Your task to perform on an android device: open app "Facebook Messenger" (install if not already installed) Image 0: 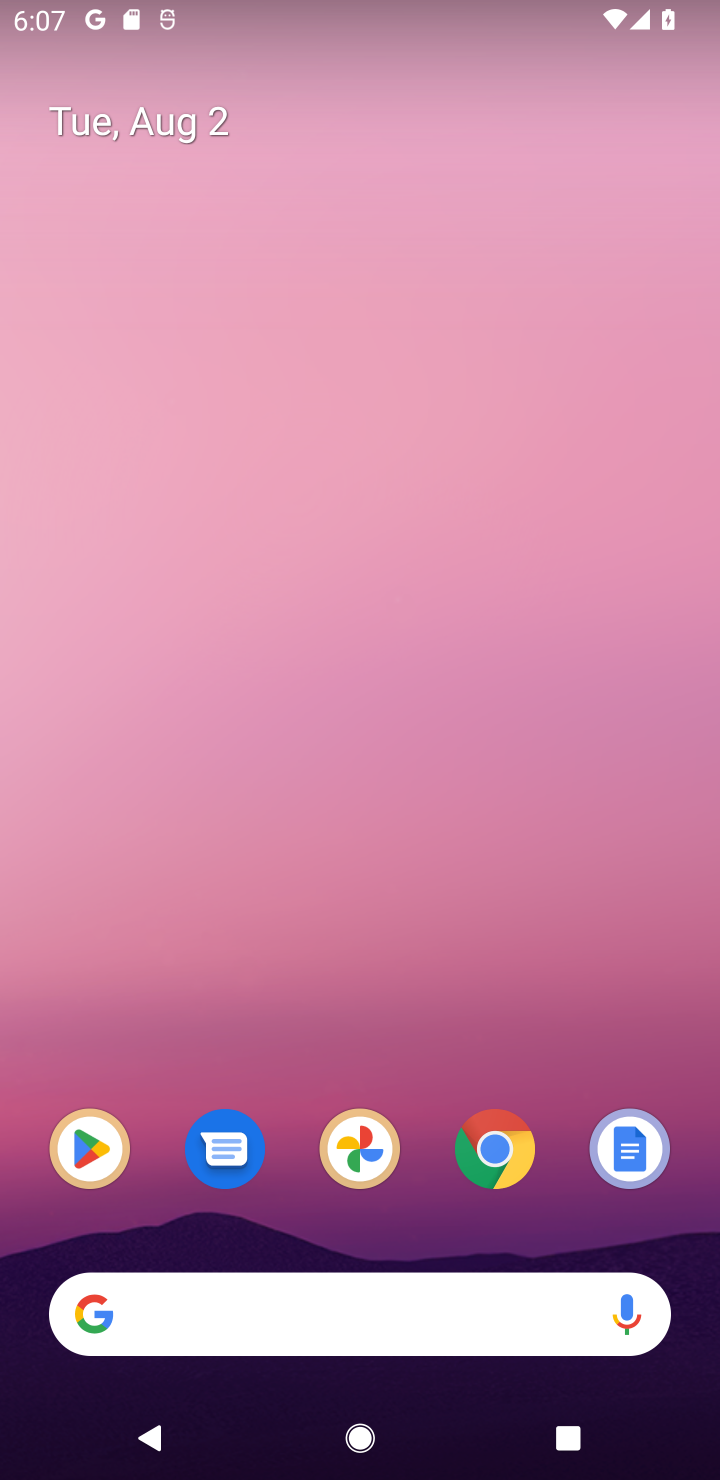
Step 0: drag from (427, 1222) to (376, 222)
Your task to perform on an android device: open app "Facebook Messenger" (install if not already installed) Image 1: 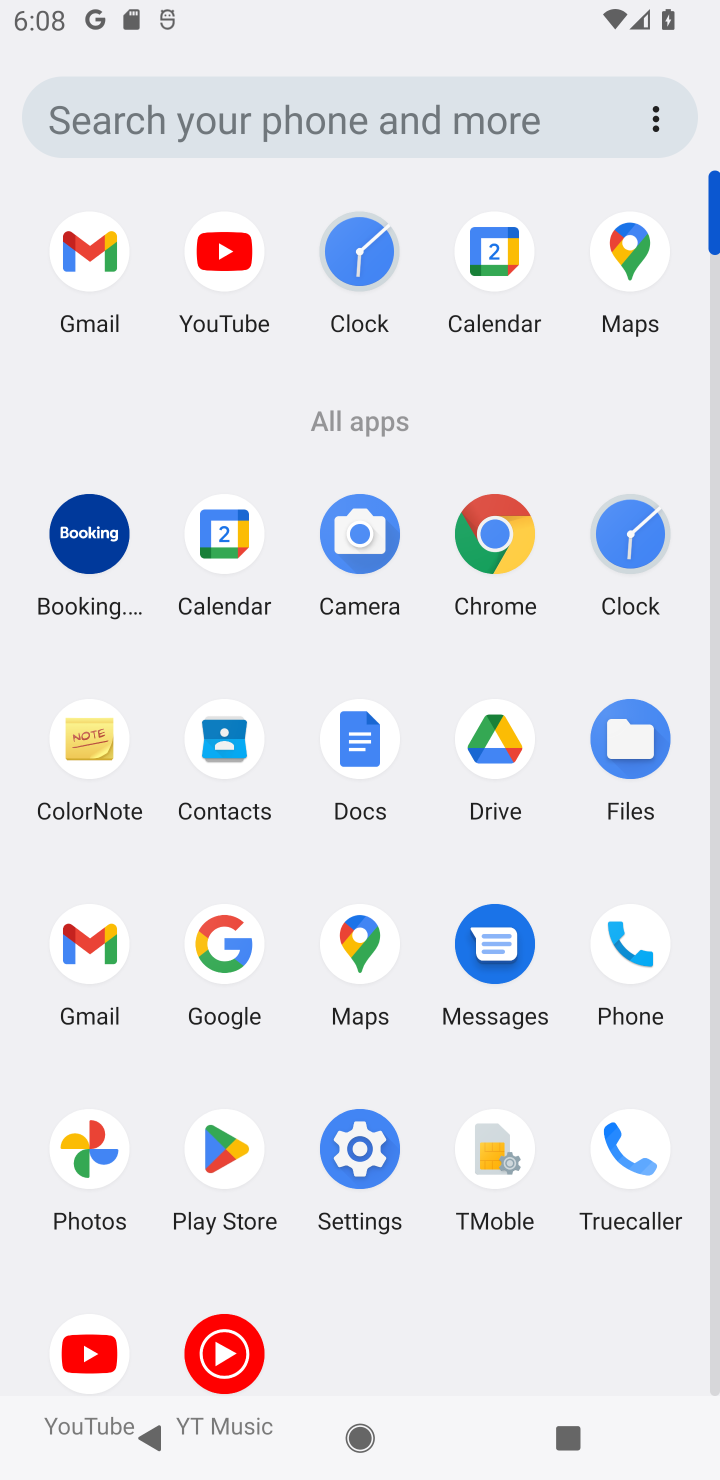
Step 1: click (227, 1163)
Your task to perform on an android device: open app "Facebook Messenger" (install if not already installed) Image 2: 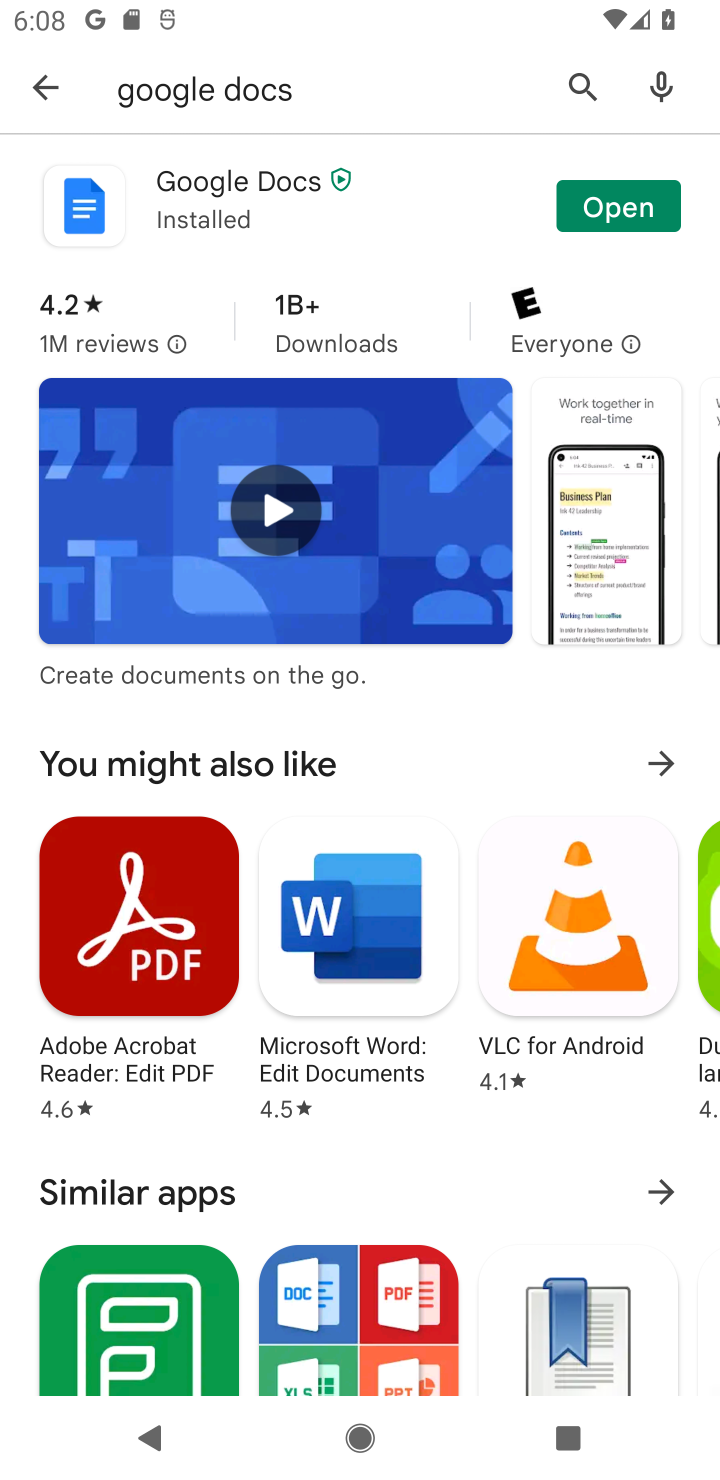
Step 2: click (44, 83)
Your task to perform on an android device: open app "Facebook Messenger" (install if not already installed) Image 3: 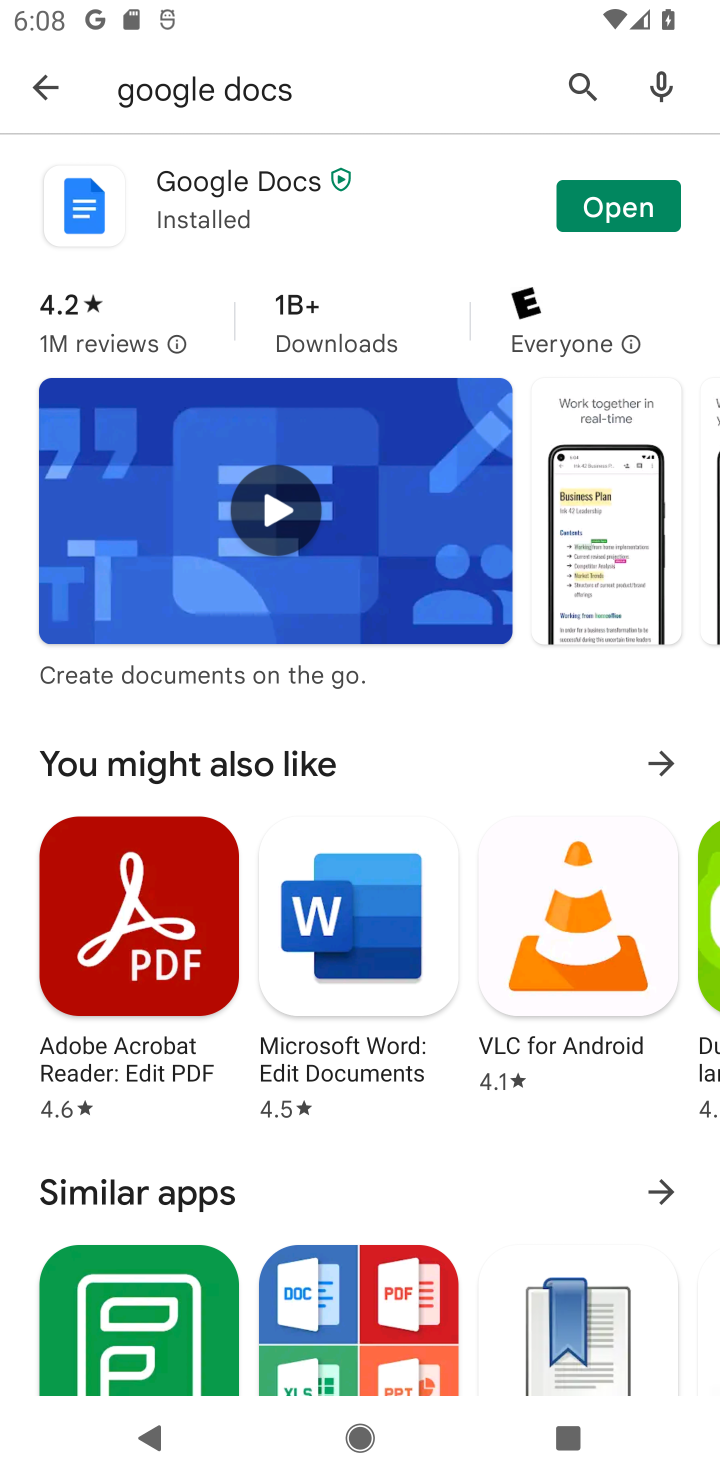
Step 3: click (33, 98)
Your task to perform on an android device: open app "Facebook Messenger" (install if not already installed) Image 4: 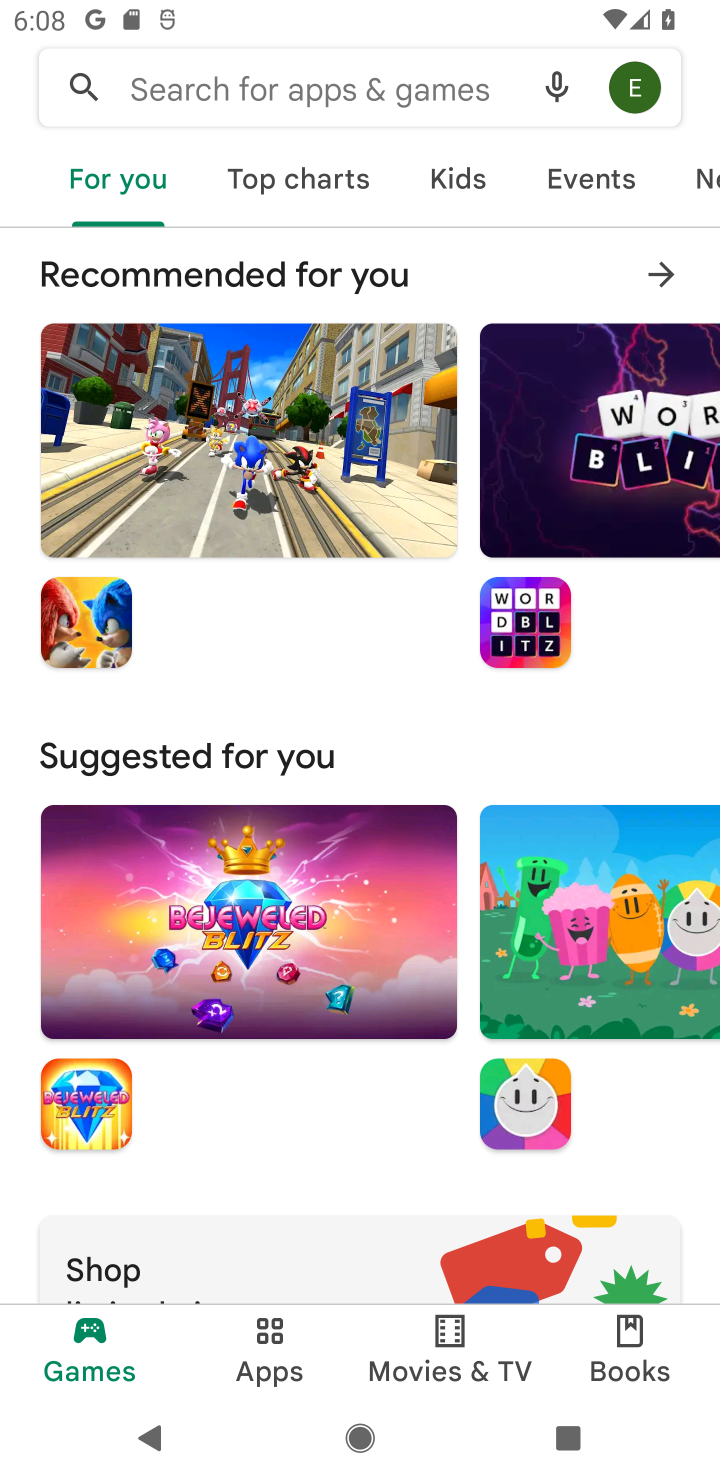
Step 4: click (225, 121)
Your task to perform on an android device: open app "Facebook Messenger" (install if not already installed) Image 5: 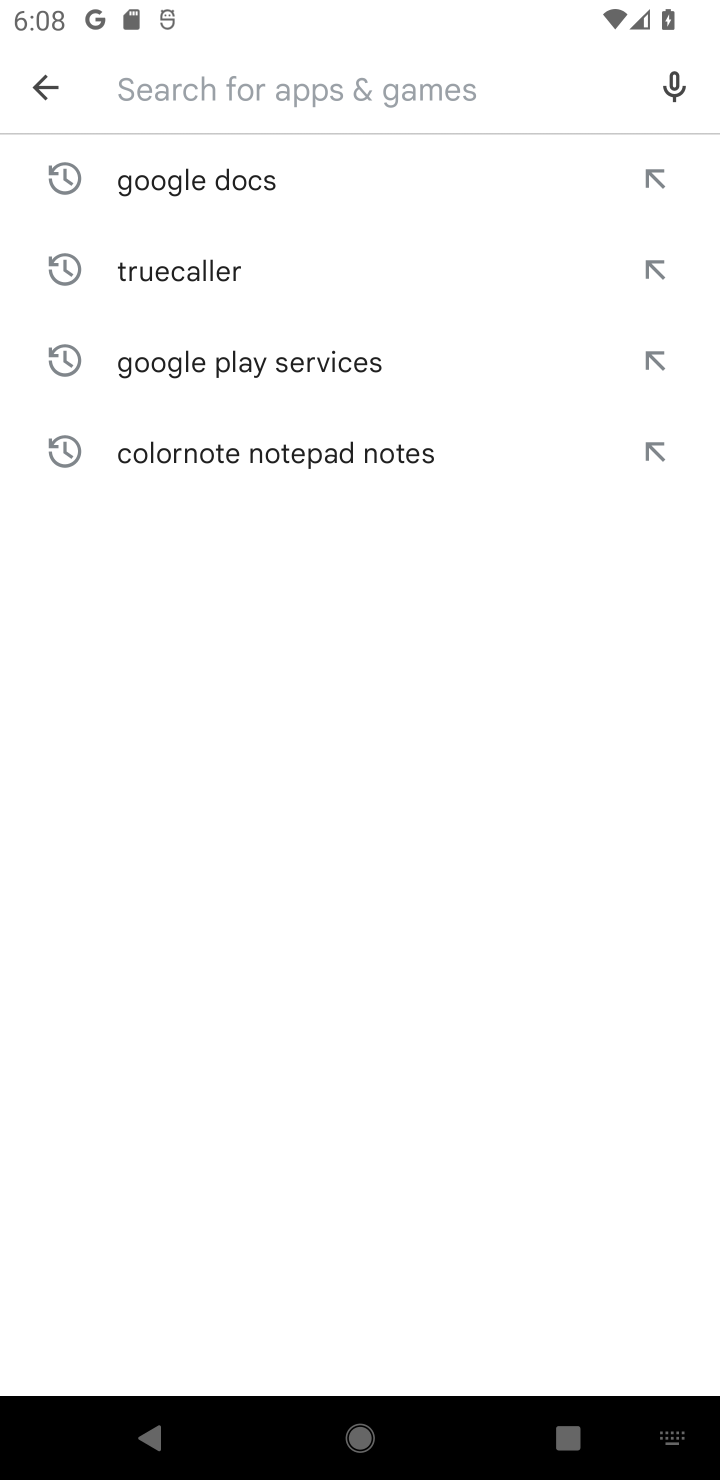
Step 5: type "Facebook Messenger"
Your task to perform on an android device: open app "Facebook Messenger" (install if not already installed) Image 6: 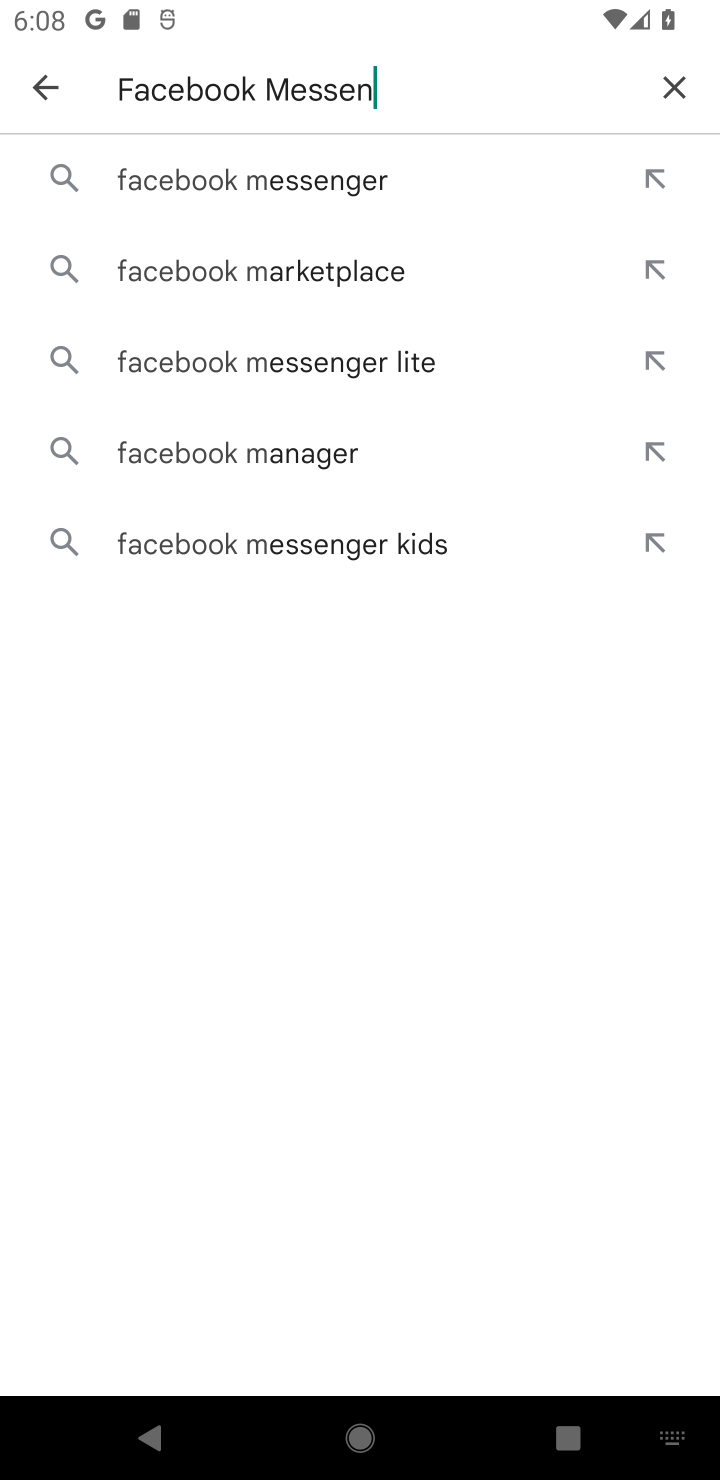
Step 6: type ""
Your task to perform on an android device: open app "Facebook Messenger" (install if not already installed) Image 7: 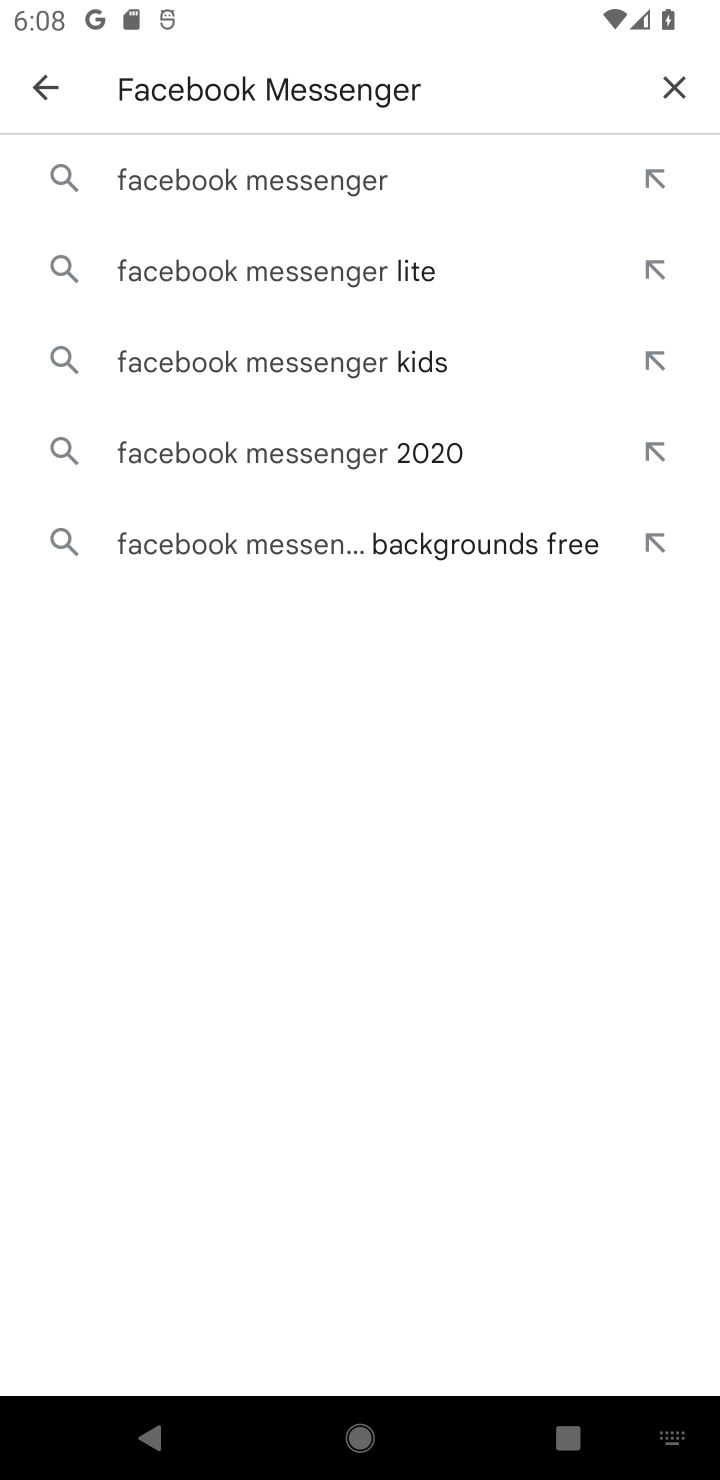
Step 7: click (175, 162)
Your task to perform on an android device: open app "Facebook Messenger" (install if not already installed) Image 8: 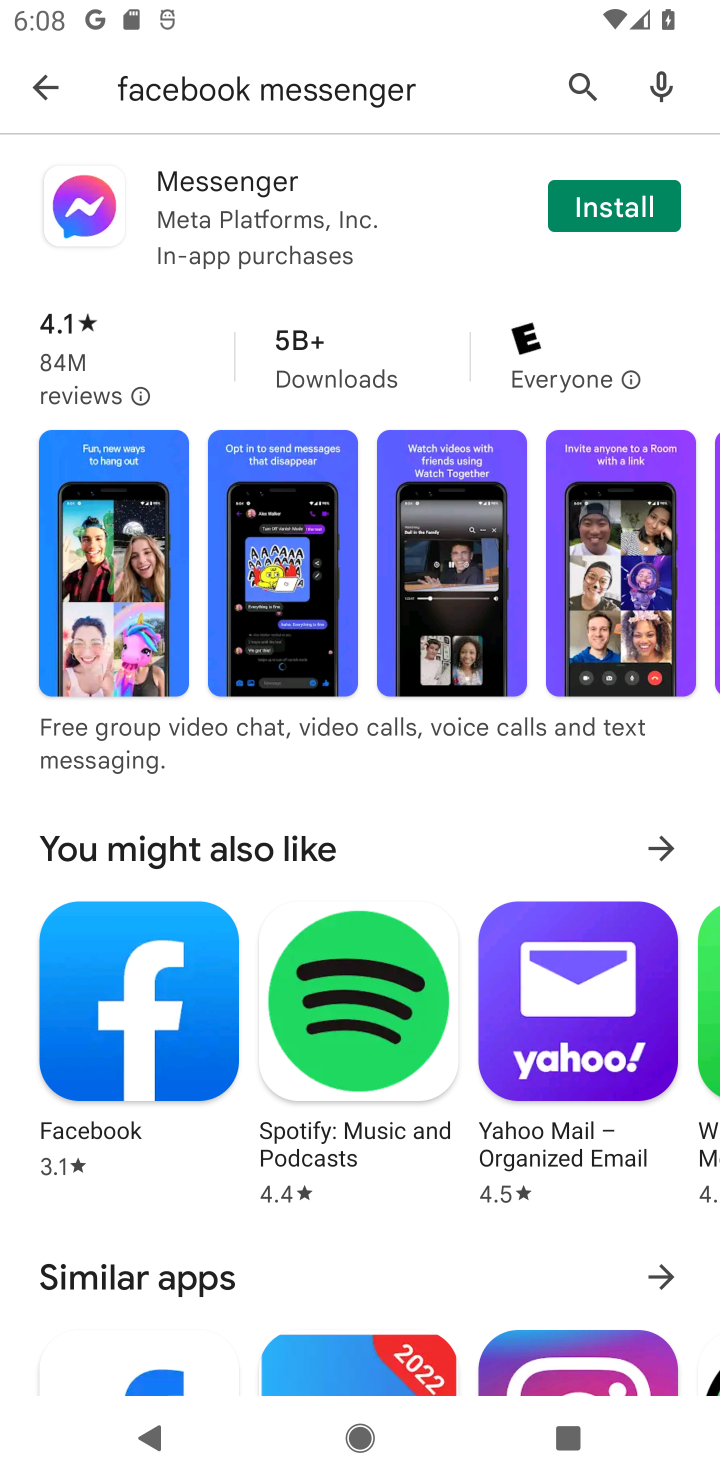
Step 8: click (601, 213)
Your task to perform on an android device: open app "Facebook Messenger" (install if not already installed) Image 9: 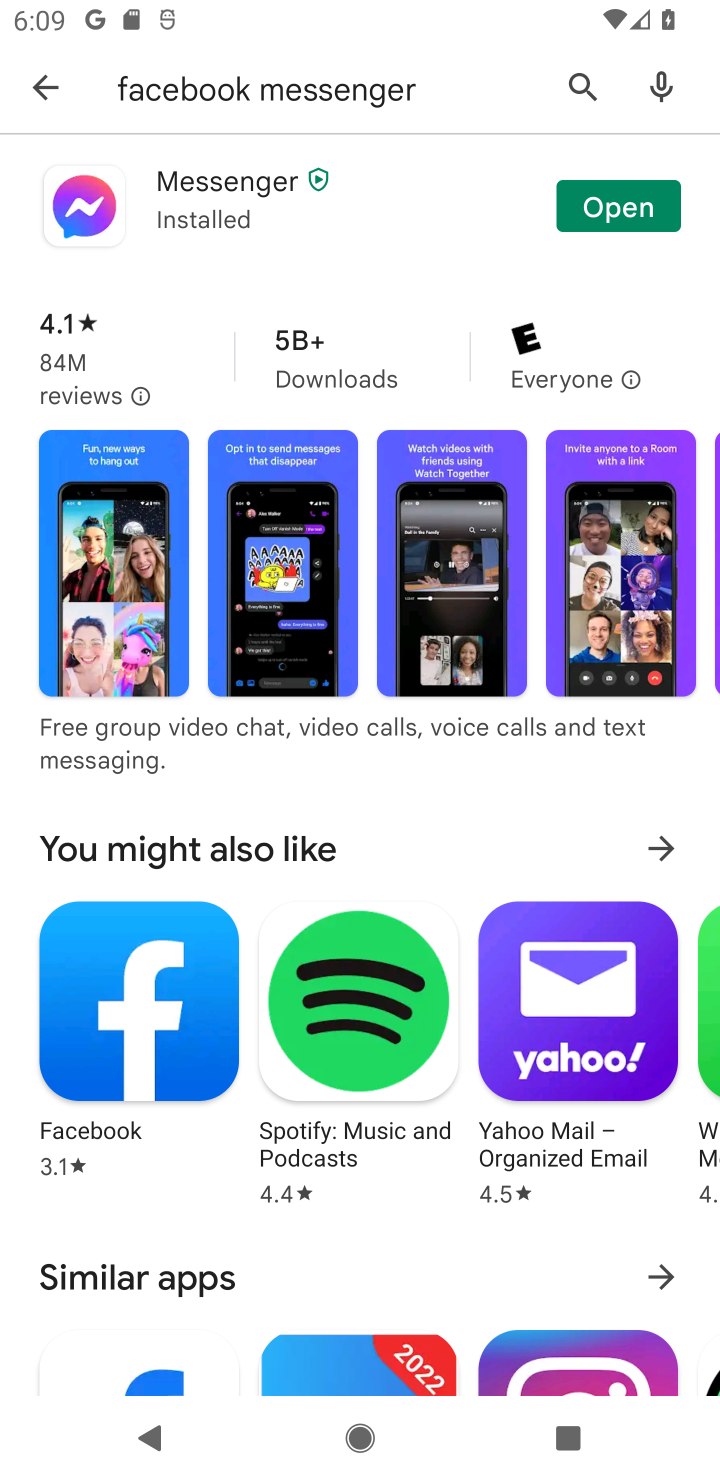
Step 9: click (587, 212)
Your task to perform on an android device: open app "Facebook Messenger" (install if not already installed) Image 10: 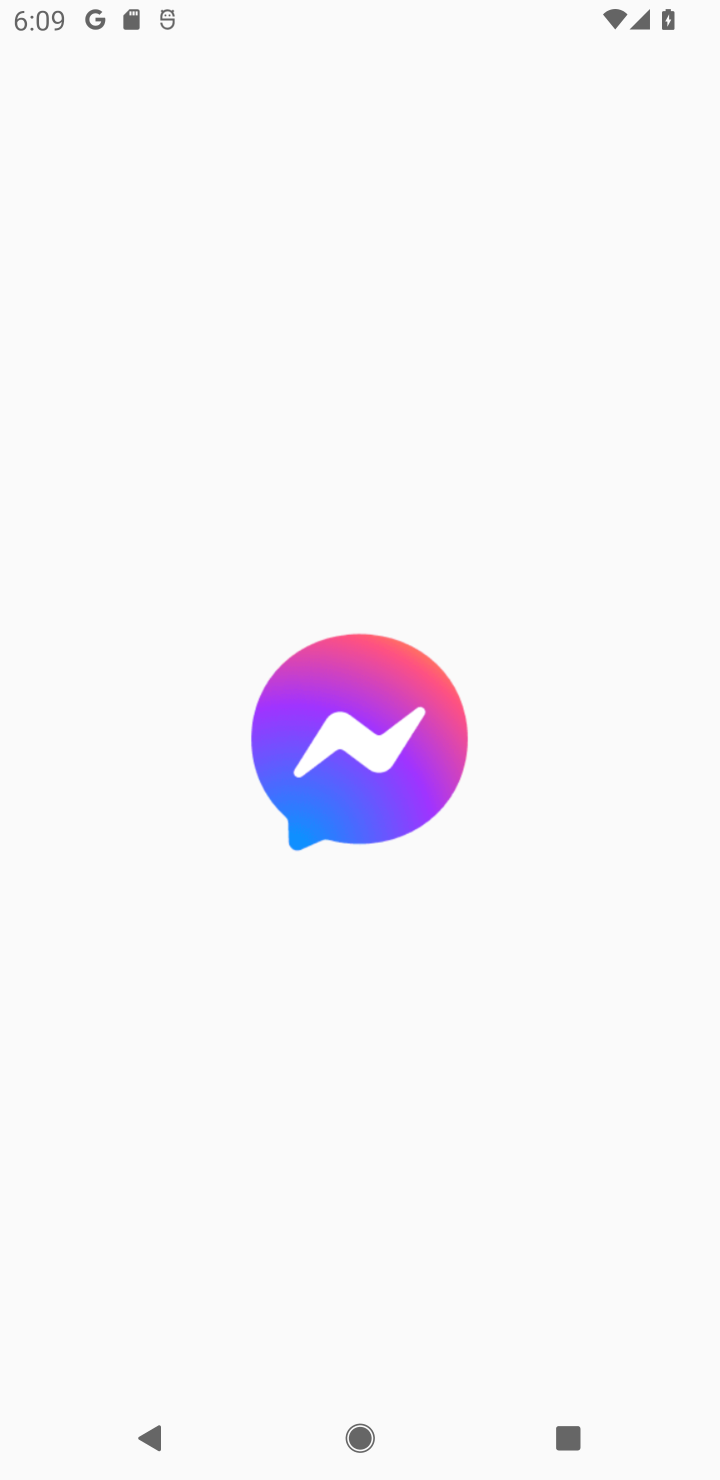
Step 10: task complete